Your task to perform on an android device: empty trash in the gmail app Image 0: 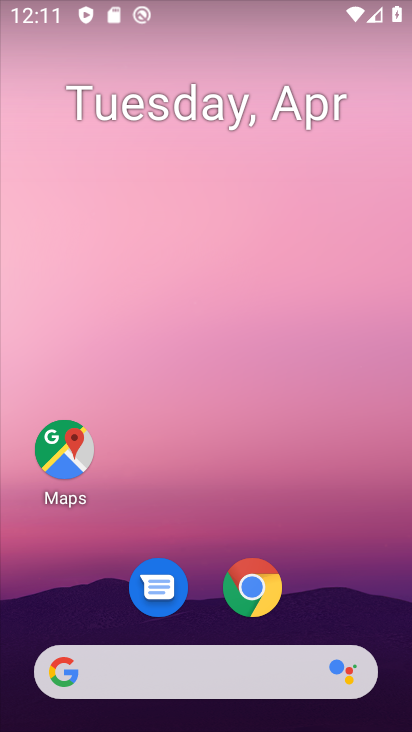
Step 0: drag from (339, 560) to (352, 123)
Your task to perform on an android device: empty trash in the gmail app Image 1: 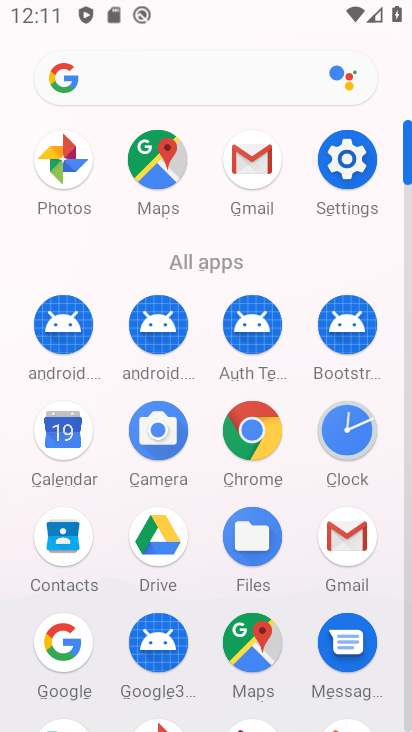
Step 1: click (341, 527)
Your task to perform on an android device: empty trash in the gmail app Image 2: 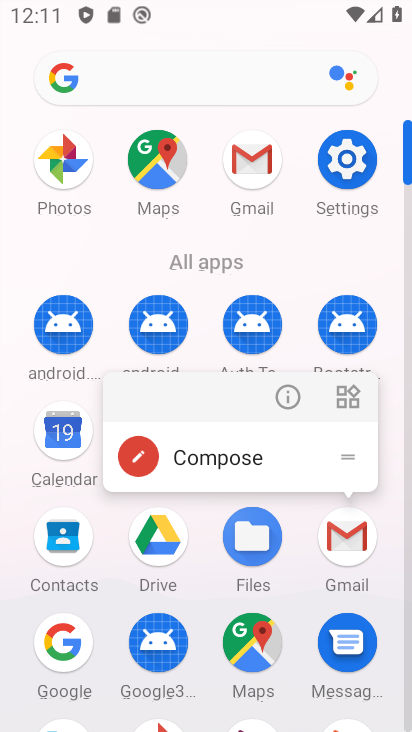
Step 2: click (337, 539)
Your task to perform on an android device: empty trash in the gmail app Image 3: 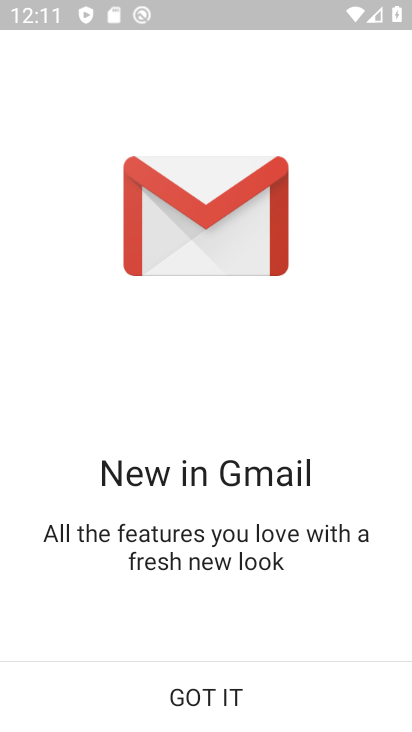
Step 3: click (236, 707)
Your task to perform on an android device: empty trash in the gmail app Image 4: 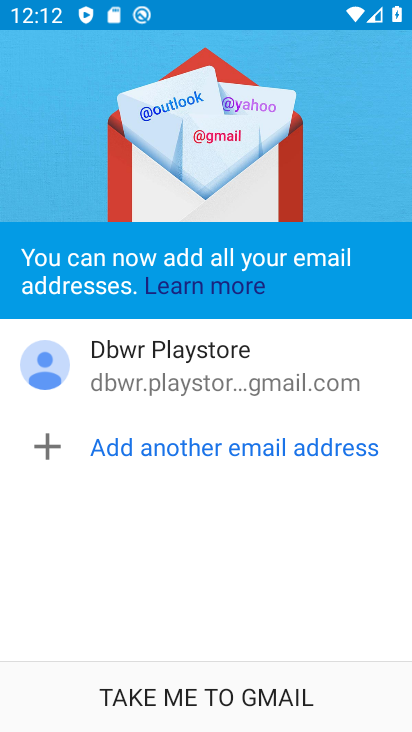
Step 4: click (245, 701)
Your task to perform on an android device: empty trash in the gmail app Image 5: 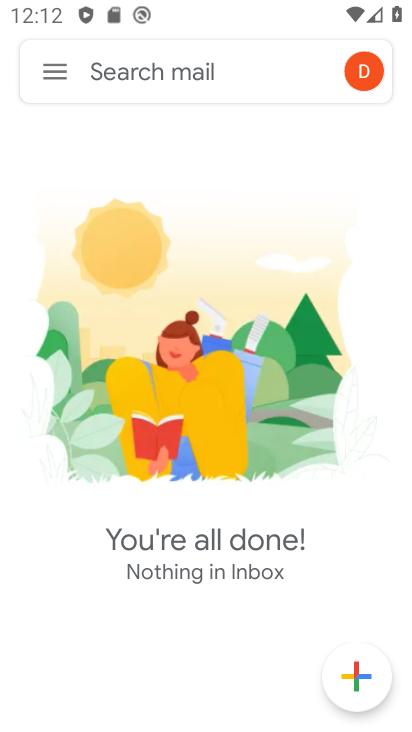
Step 5: click (59, 65)
Your task to perform on an android device: empty trash in the gmail app Image 6: 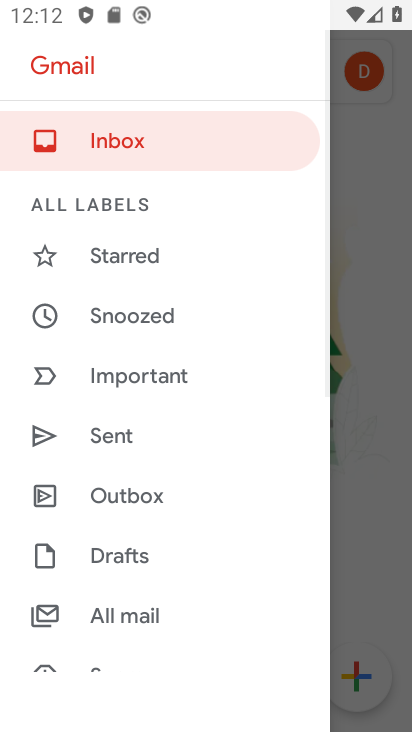
Step 6: drag from (215, 571) to (239, 334)
Your task to perform on an android device: empty trash in the gmail app Image 7: 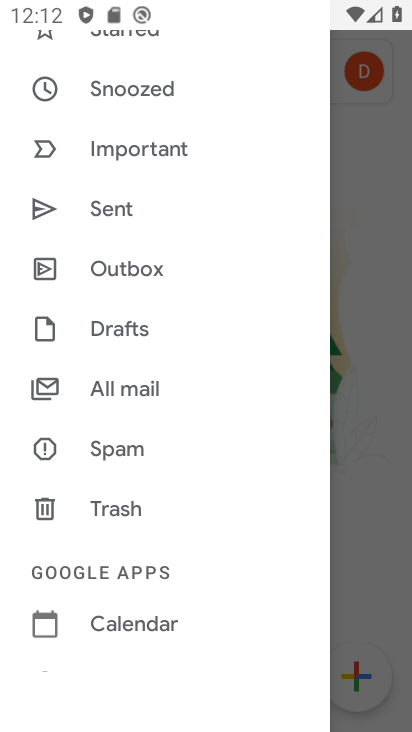
Step 7: click (122, 529)
Your task to perform on an android device: empty trash in the gmail app Image 8: 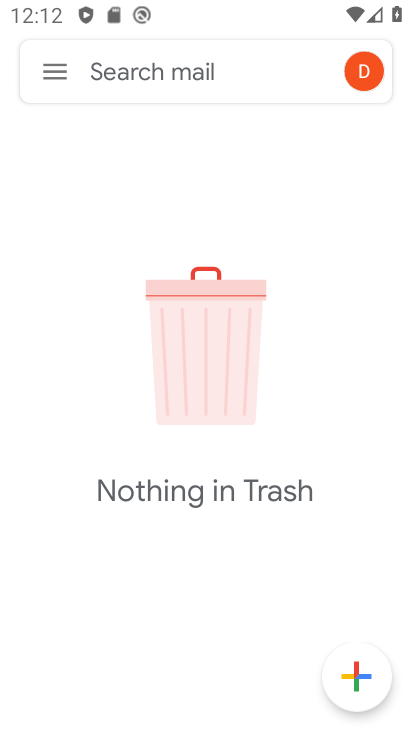
Step 8: task complete